Your task to perform on an android device: Open sound settings Image 0: 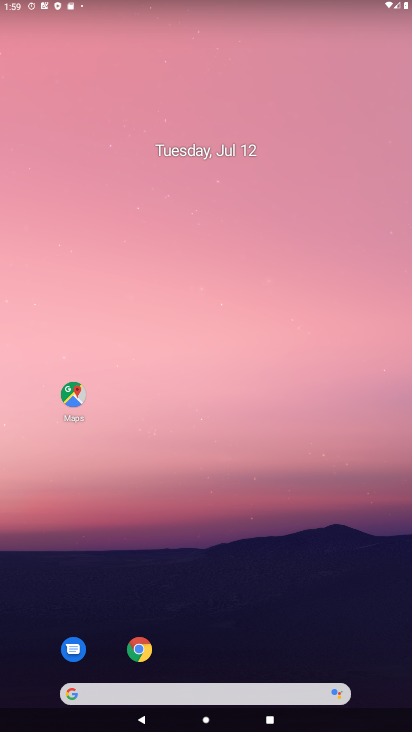
Step 0: drag from (375, 703) to (15, 49)
Your task to perform on an android device: Open sound settings Image 1: 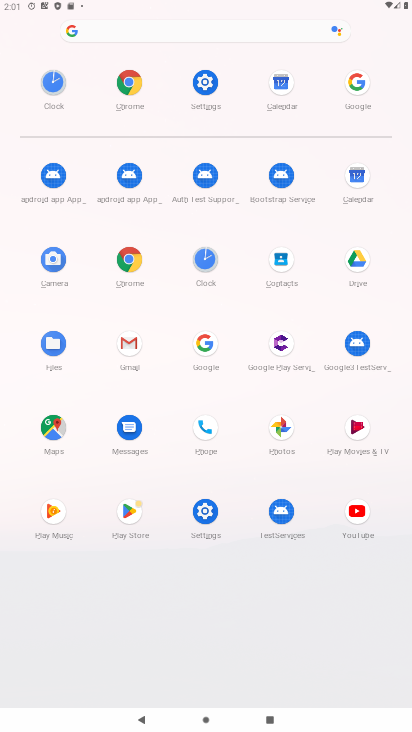
Step 1: click (202, 515)
Your task to perform on an android device: Open sound settings Image 2: 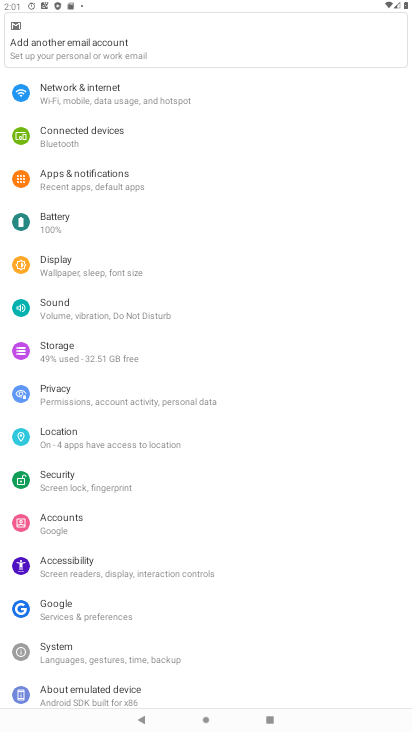
Step 2: click (55, 310)
Your task to perform on an android device: Open sound settings Image 3: 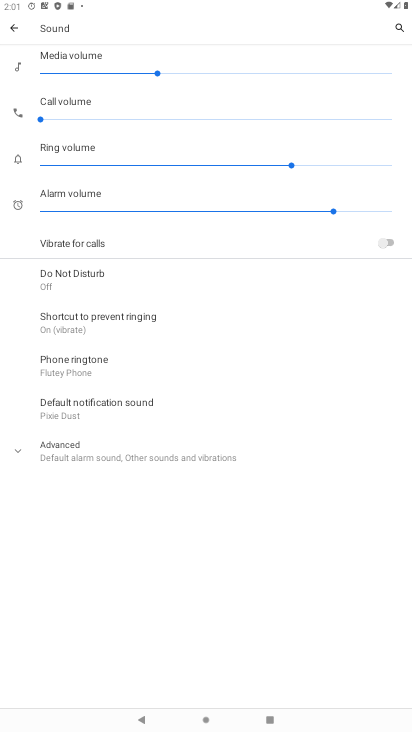
Step 3: task complete